Your task to perform on an android device: Search for pizza restaurants on Maps Image 0: 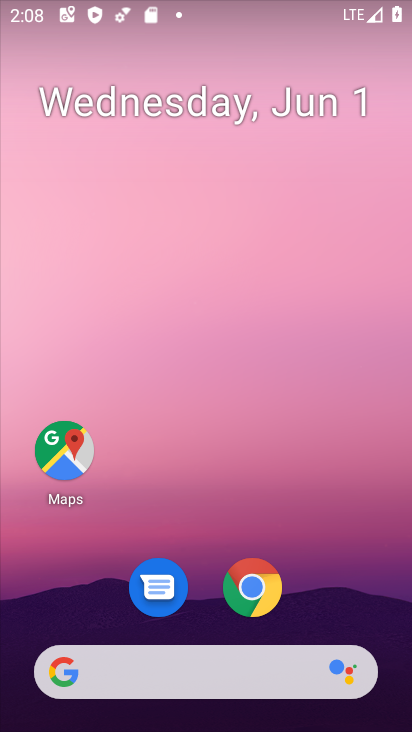
Step 0: click (82, 484)
Your task to perform on an android device: Search for pizza restaurants on Maps Image 1: 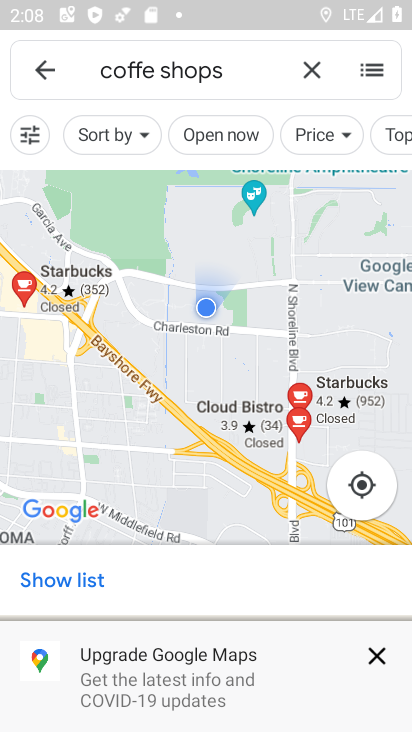
Step 1: click (308, 71)
Your task to perform on an android device: Search for pizza restaurants on Maps Image 2: 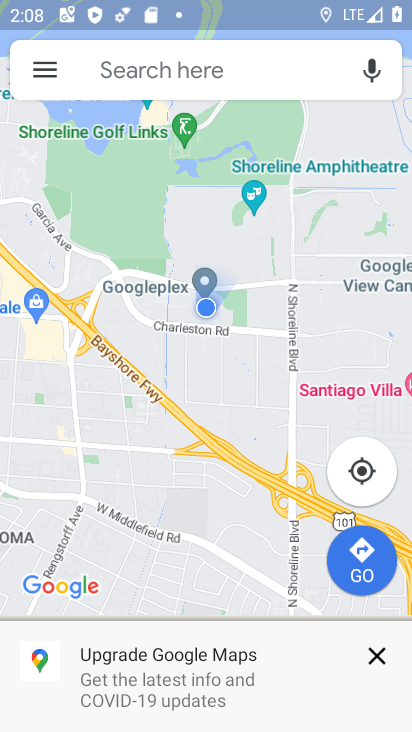
Step 2: click (214, 70)
Your task to perform on an android device: Search for pizza restaurants on Maps Image 3: 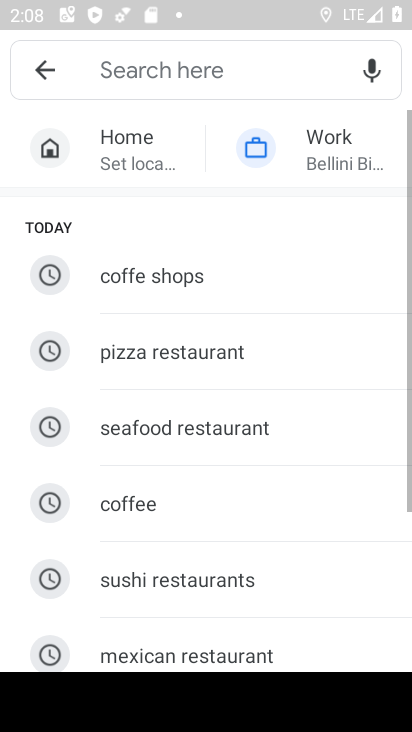
Step 3: click (198, 352)
Your task to perform on an android device: Search for pizza restaurants on Maps Image 4: 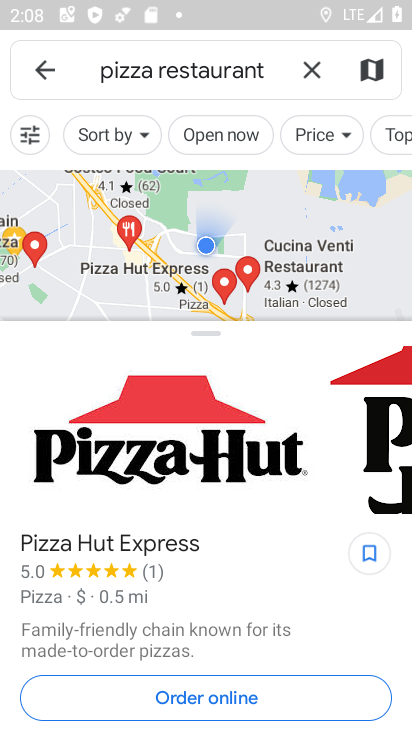
Step 4: task complete